Your task to perform on an android device: turn off smart reply in the gmail app Image 0: 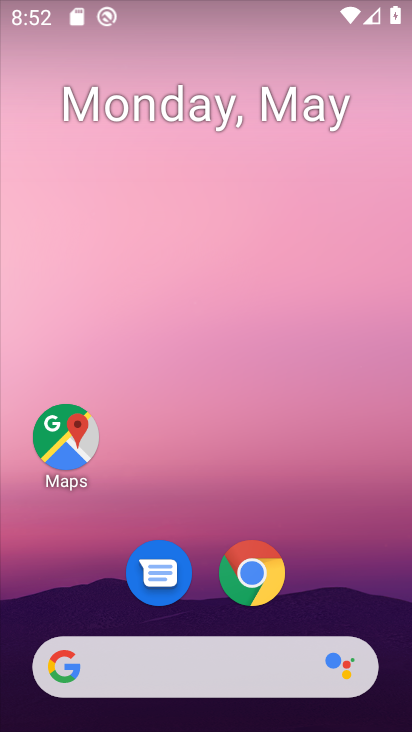
Step 0: drag from (149, 610) to (235, 216)
Your task to perform on an android device: turn off smart reply in the gmail app Image 1: 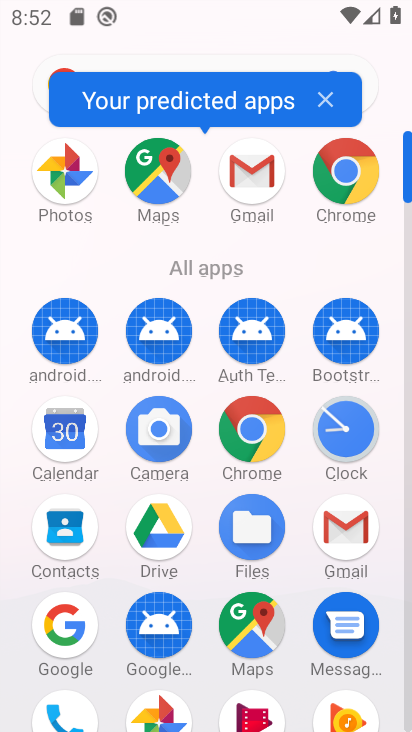
Step 1: click (332, 551)
Your task to perform on an android device: turn off smart reply in the gmail app Image 2: 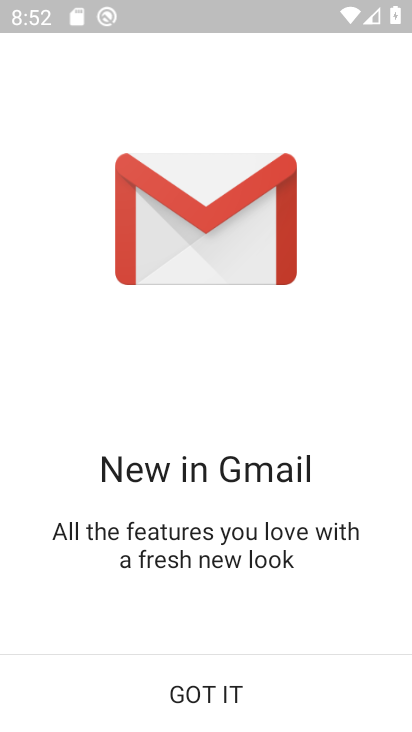
Step 2: click (212, 702)
Your task to perform on an android device: turn off smart reply in the gmail app Image 3: 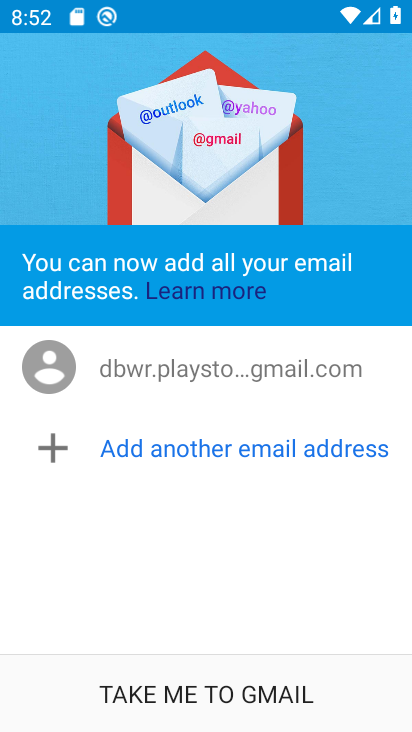
Step 3: click (253, 701)
Your task to perform on an android device: turn off smart reply in the gmail app Image 4: 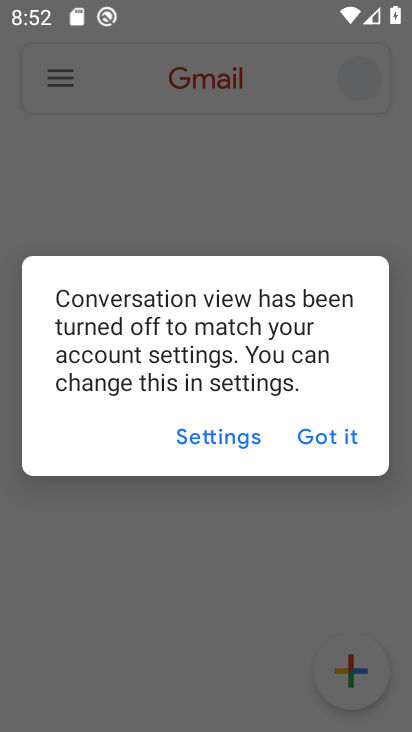
Step 4: click (331, 446)
Your task to perform on an android device: turn off smart reply in the gmail app Image 5: 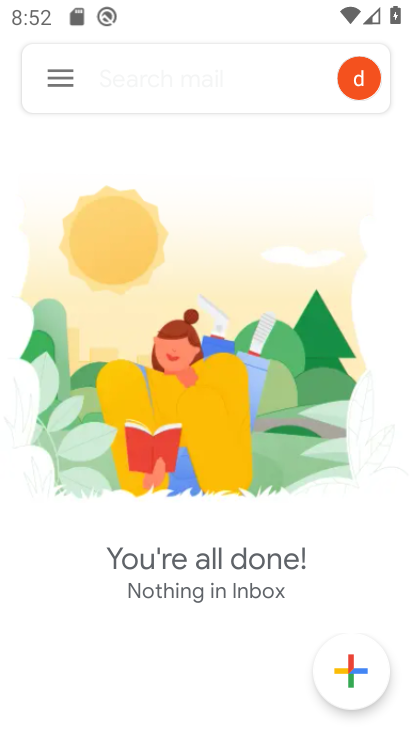
Step 5: click (62, 80)
Your task to perform on an android device: turn off smart reply in the gmail app Image 6: 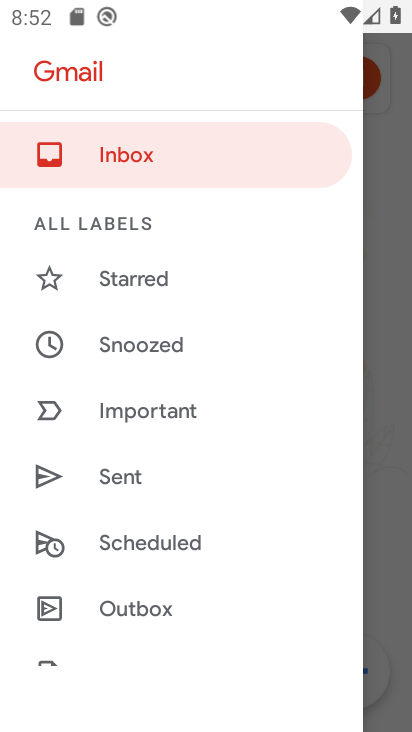
Step 6: drag from (161, 687) to (309, 89)
Your task to perform on an android device: turn off smart reply in the gmail app Image 7: 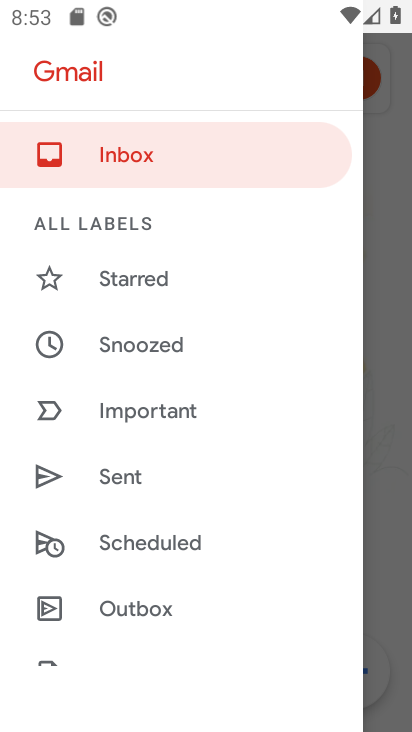
Step 7: drag from (178, 615) to (282, 245)
Your task to perform on an android device: turn off smart reply in the gmail app Image 8: 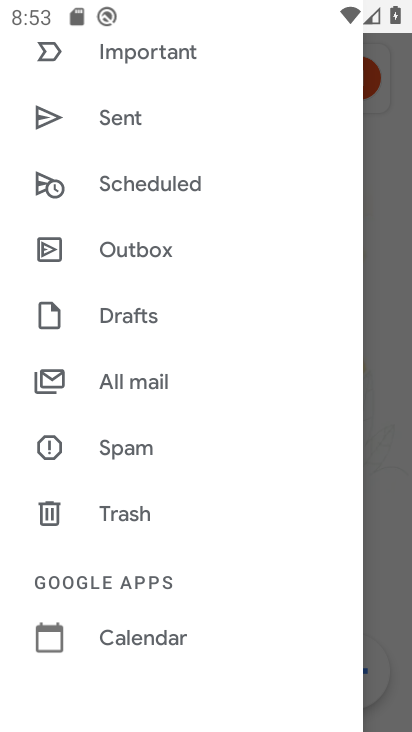
Step 8: drag from (181, 635) to (285, 176)
Your task to perform on an android device: turn off smart reply in the gmail app Image 9: 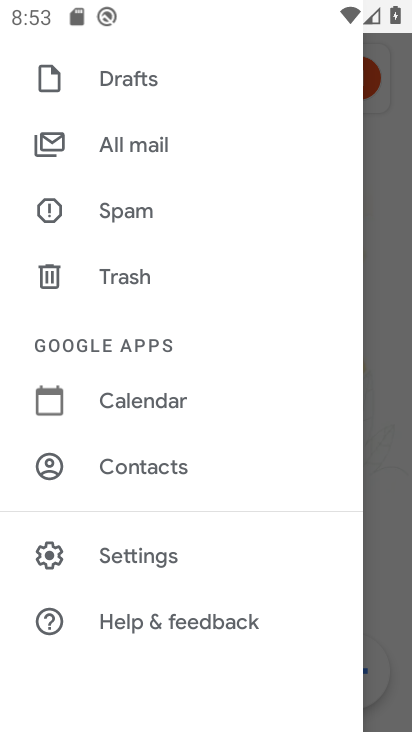
Step 9: click (180, 546)
Your task to perform on an android device: turn off smart reply in the gmail app Image 10: 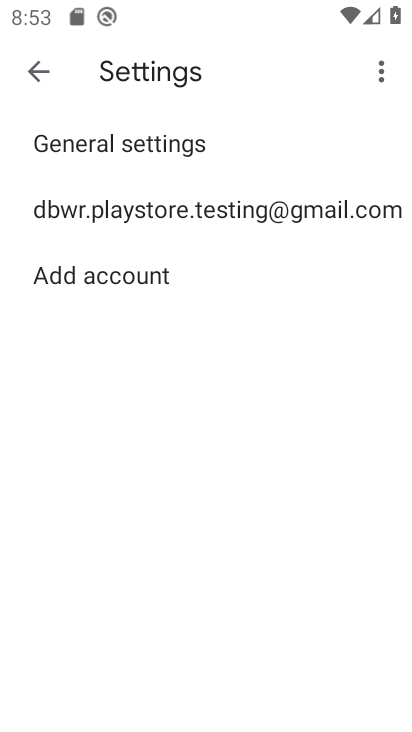
Step 10: click (235, 221)
Your task to perform on an android device: turn off smart reply in the gmail app Image 11: 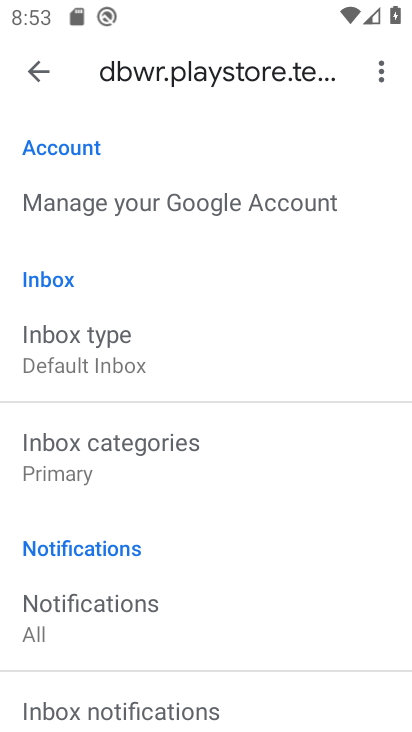
Step 11: drag from (164, 688) to (251, 266)
Your task to perform on an android device: turn off smart reply in the gmail app Image 12: 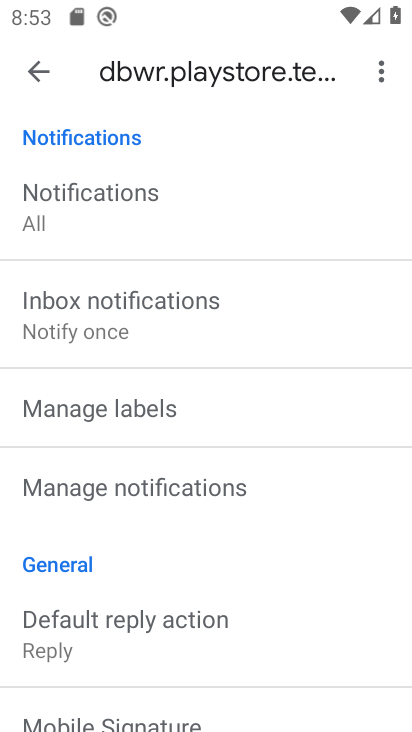
Step 12: drag from (196, 674) to (296, 250)
Your task to perform on an android device: turn off smart reply in the gmail app Image 13: 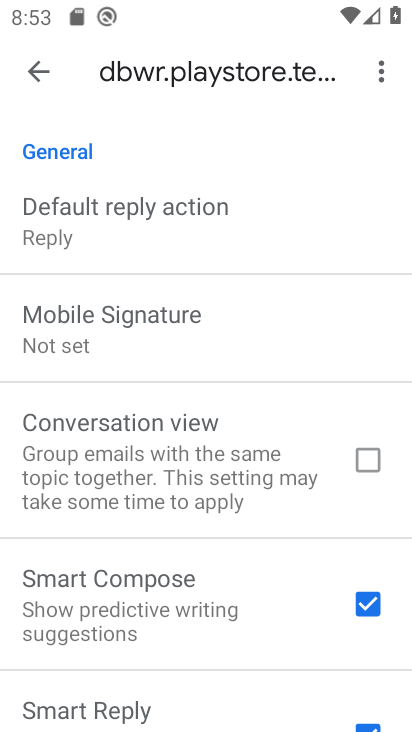
Step 13: drag from (140, 693) to (198, 419)
Your task to perform on an android device: turn off smart reply in the gmail app Image 14: 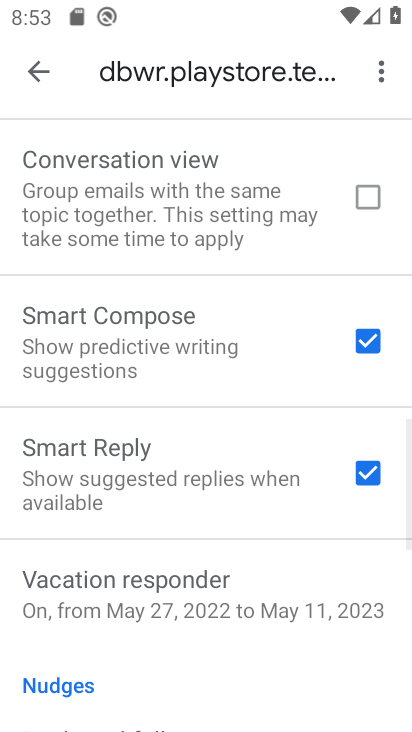
Step 14: click (367, 488)
Your task to perform on an android device: turn off smart reply in the gmail app Image 15: 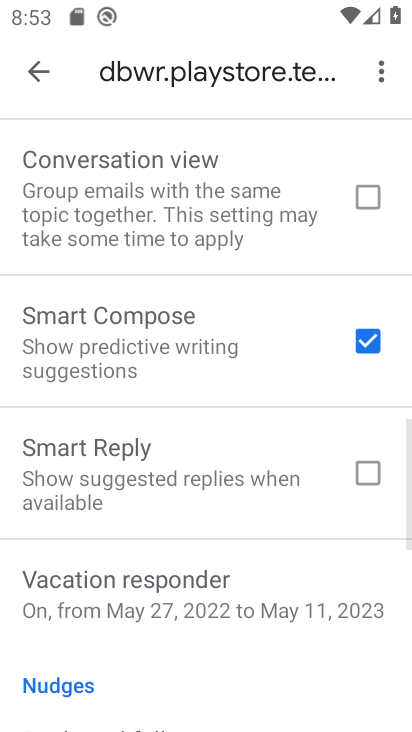
Step 15: task complete